Your task to perform on an android device: What's on my calendar tomorrow? Image 0: 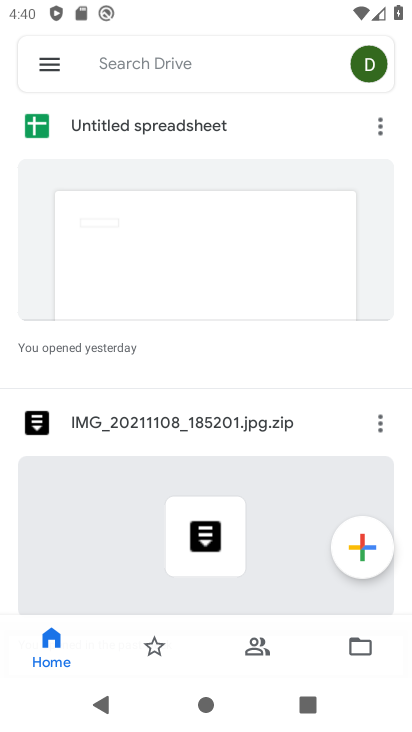
Step 0: press home button
Your task to perform on an android device: What's on my calendar tomorrow? Image 1: 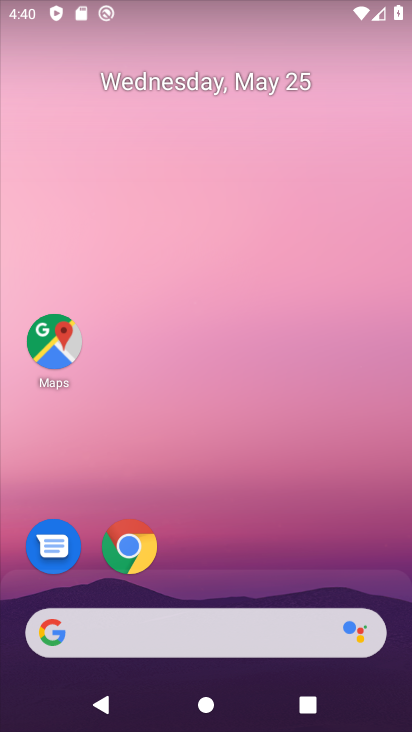
Step 1: drag from (248, 510) to (246, 169)
Your task to perform on an android device: What's on my calendar tomorrow? Image 2: 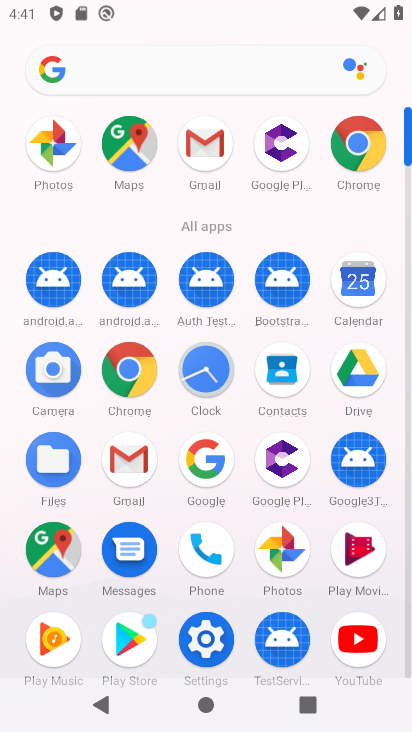
Step 2: click (372, 282)
Your task to perform on an android device: What's on my calendar tomorrow? Image 3: 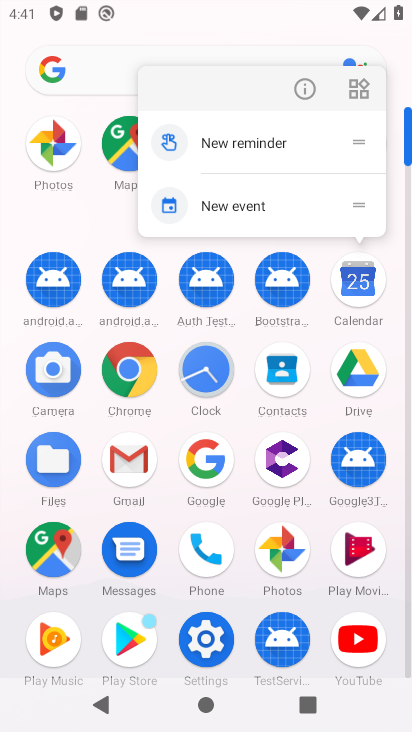
Step 3: click (362, 298)
Your task to perform on an android device: What's on my calendar tomorrow? Image 4: 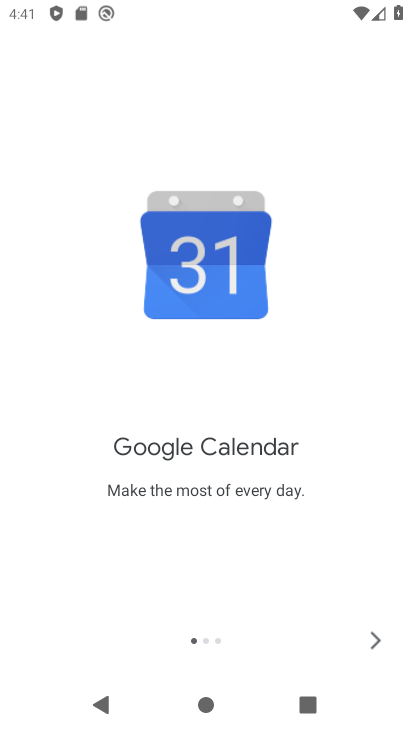
Step 4: click (385, 632)
Your task to perform on an android device: What's on my calendar tomorrow? Image 5: 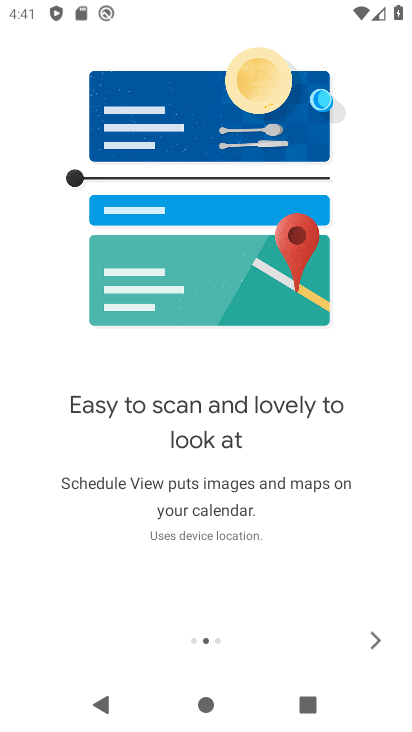
Step 5: click (385, 632)
Your task to perform on an android device: What's on my calendar tomorrow? Image 6: 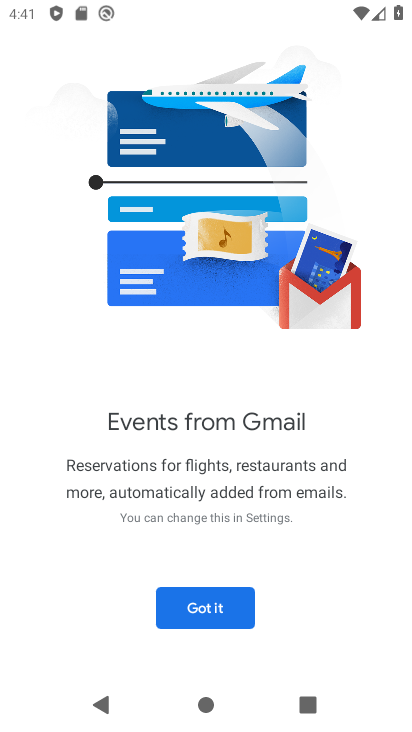
Step 6: click (232, 611)
Your task to perform on an android device: What's on my calendar tomorrow? Image 7: 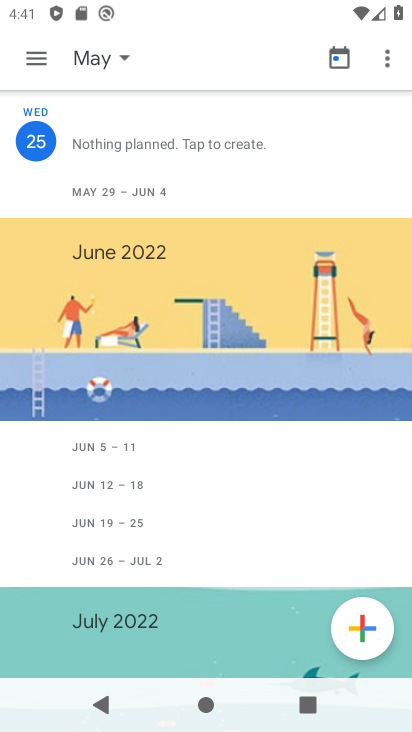
Step 7: click (91, 59)
Your task to perform on an android device: What's on my calendar tomorrow? Image 8: 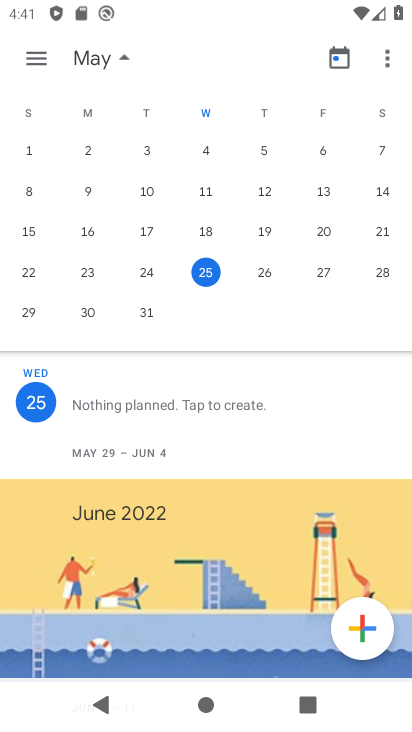
Step 8: click (261, 271)
Your task to perform on an android device: What's on my calendar tomorrow? Image 9: 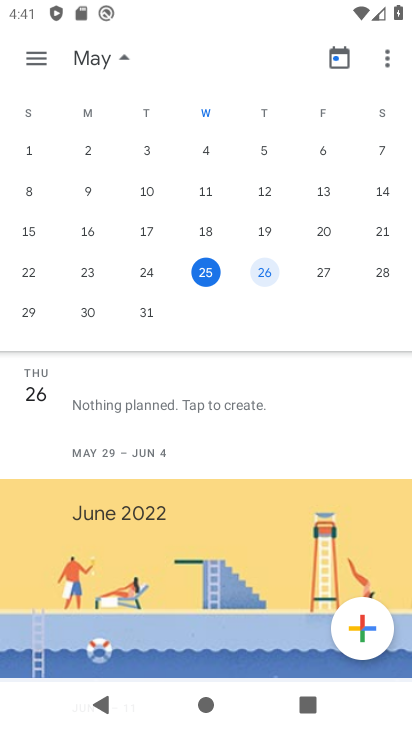
Step 9: task complete